Your task to perform on an android device: Open Wikipedia Image 0: 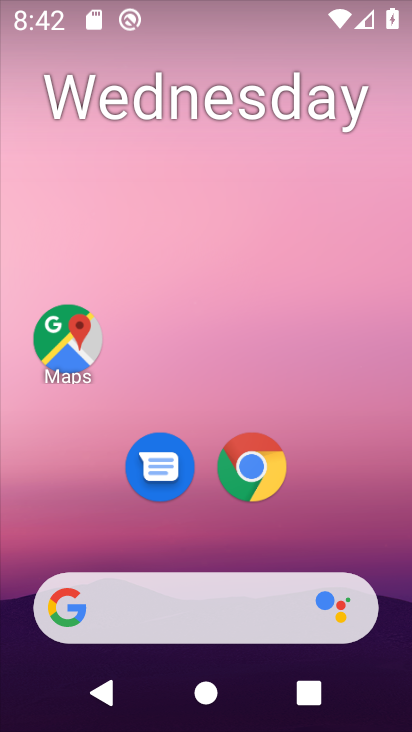
Step 0: drag from (327, 541) to (397, 15)
Your task to perform on an android device: Open Wikipedia Image 1: 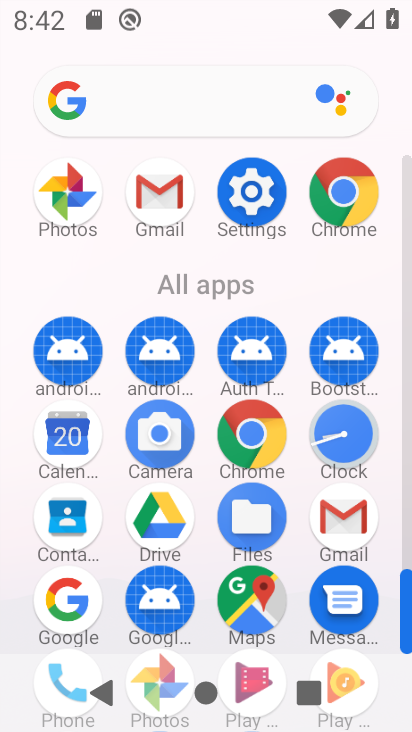
Step 1: drag from (381, 516) to (356, 218)
Your task to perform on an android device: Open Wikipedia Image 2: 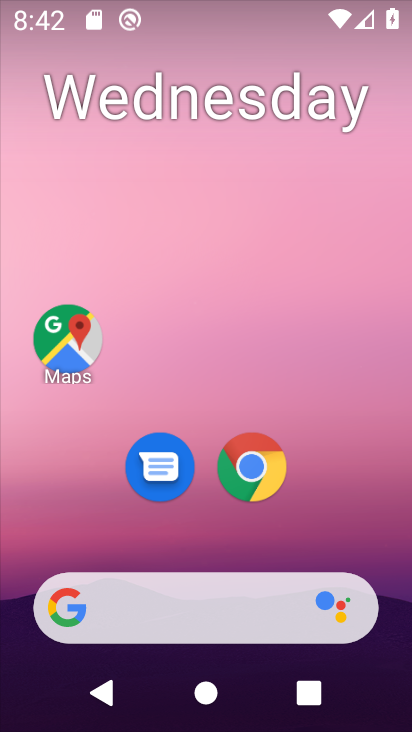
Step 2: click (211, 501)
Your task to perform on an android device: Open Wikipedia Image 3: 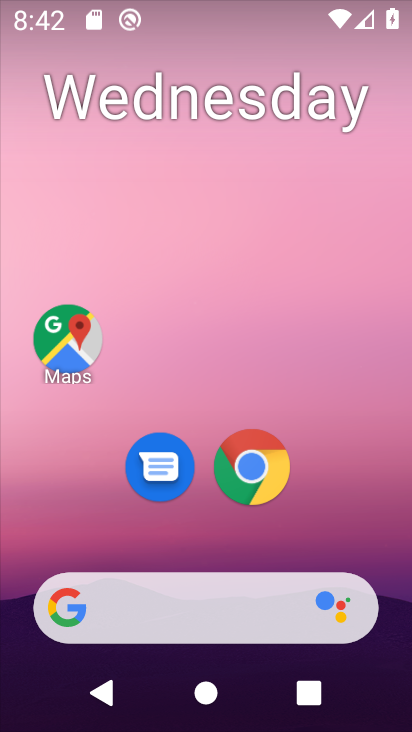
Step 3: click (239, 484)
Your task to perform on an android device: Open Wikipedia Image 4: 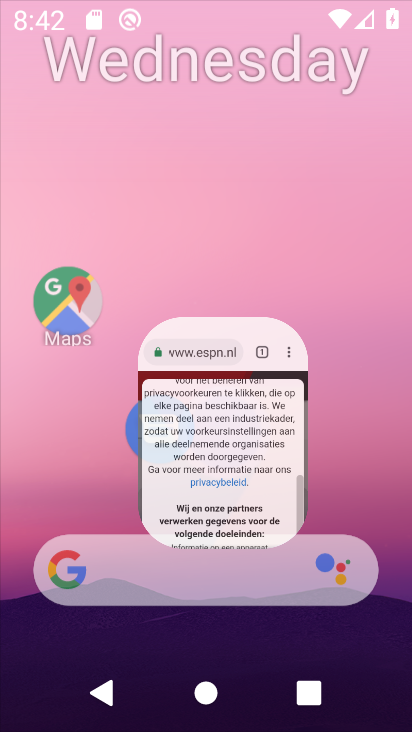
Step 4: click (239, 483)
Your task to perform on an android device: Open Wikipedia Image 5: 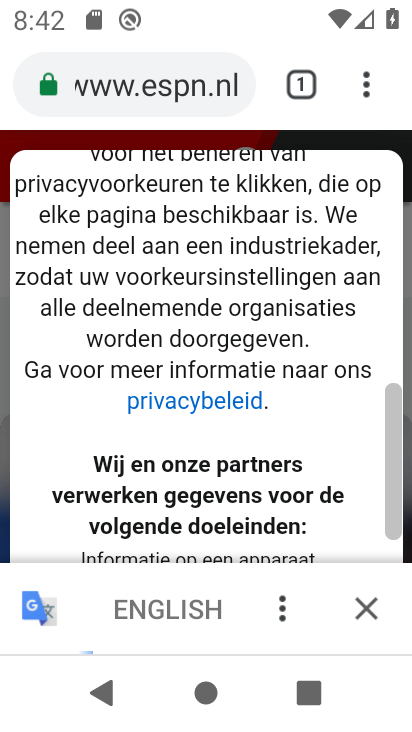
Step 5: click (147, 86)
Your task to perform on an android device: Open Wikipedia Image 6: 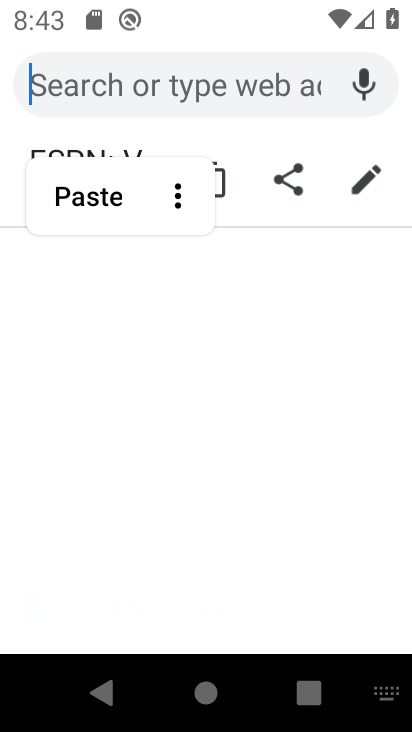
Step 6: type "wikipedia"
Your task to perform on an android device: Open Wikipedia Image 7: 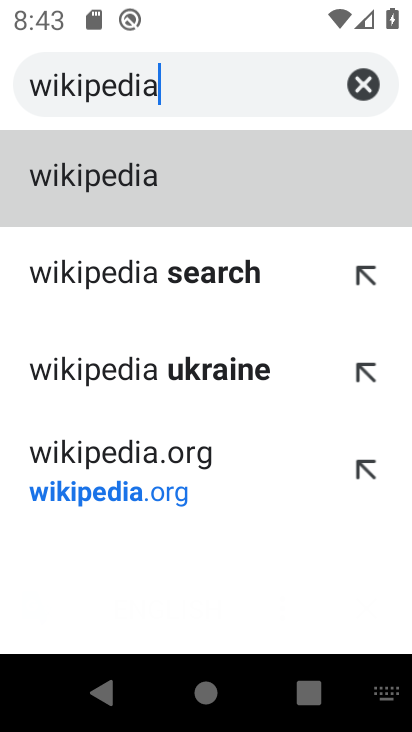
Step 7: click (118, 185)
Your task to perform on an android device: Open Wikipedia Image 8: 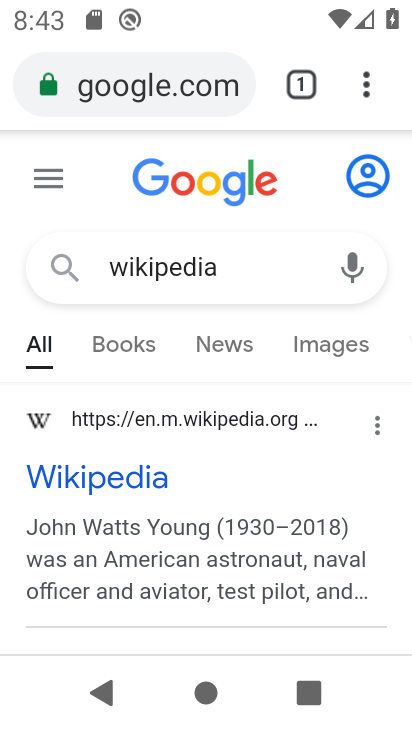
Step 8: click (90, 466)
Your task to perform on an android device: Open Wikipedia Image 9: 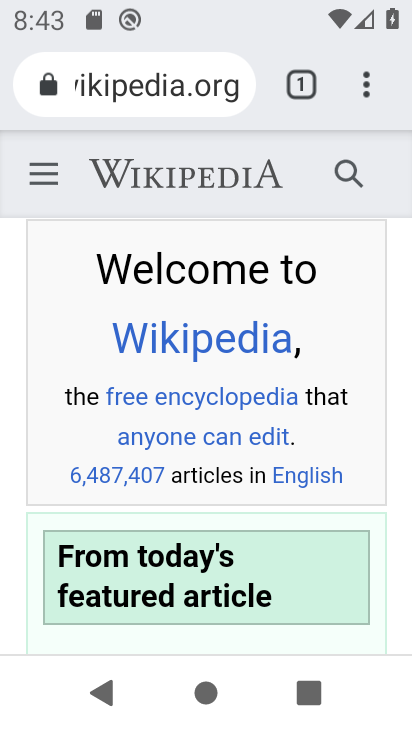
Step 9: task complete